Your task to perform on an android device: change text size in settings app Image 0: 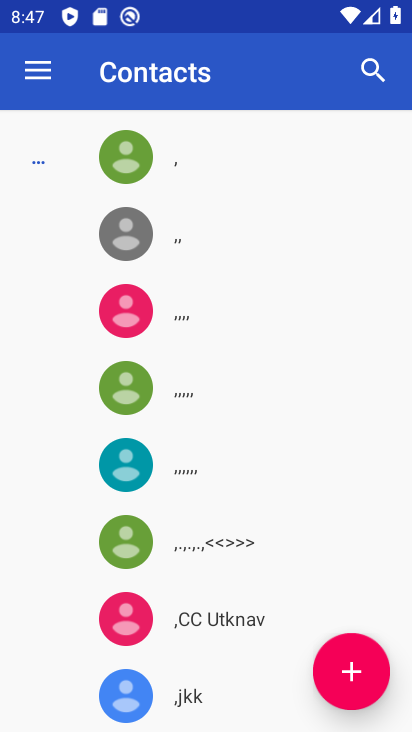
Step 0: press home button
Your task to perform on an android device: change text size in settings app Image 1: 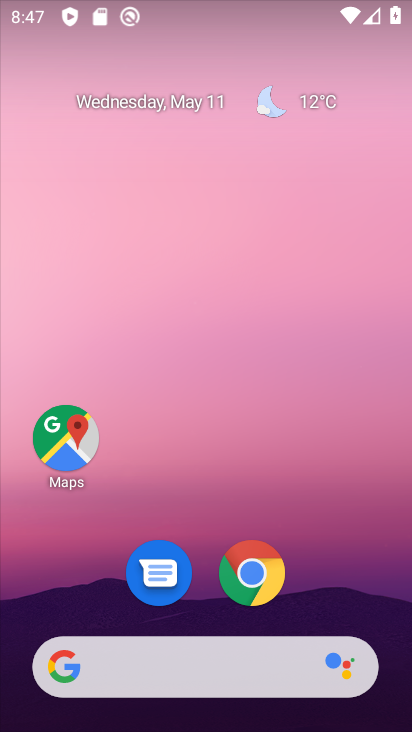
Step 1: drag from (279, 644) to (289, 21)
Your task to perform on an android device: change text size in settings app Image 2: 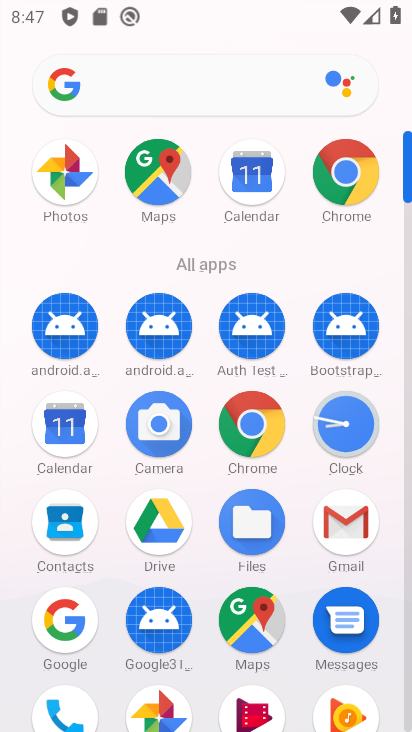
Step 2: drag from (298, 658) to (282, 223)
Your task to perform on an android device: change text size in settings app Image 3: 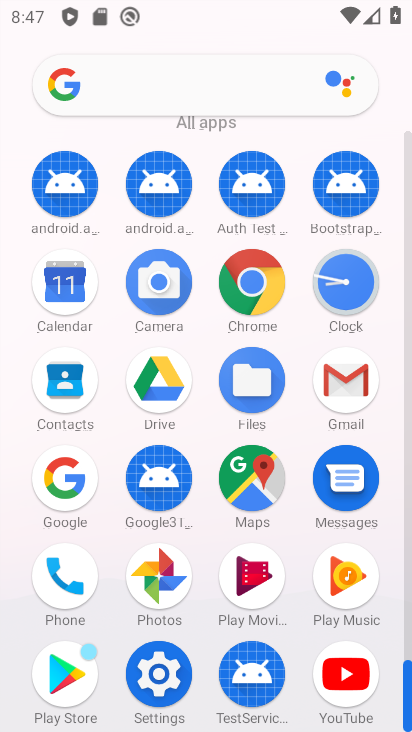
Step 3: click (168, 663)
Your task to perform on an android device: change text size in settings app Image 4: 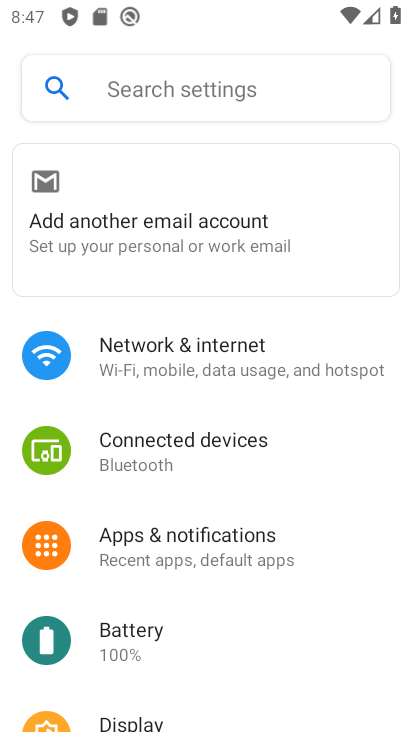
Step 4: drag from (287, 708) to (321, 169)
Your task to perform on an android device: change text size in settings app Image 5: 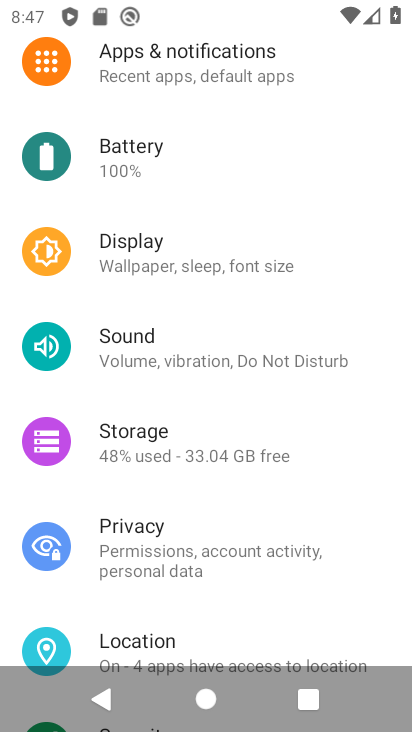
Step 5: drag from (295, 584) to (323, 1)
Your task to perform on an android device: change text size in settings app Image 6: 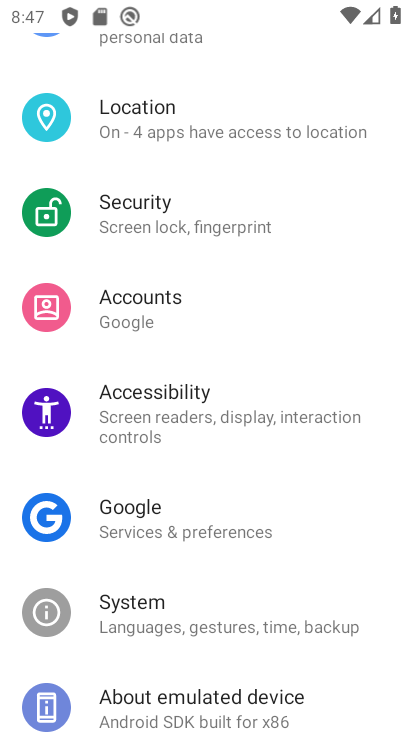
Step 6: drag from (197, 654) to (259, 288)
Your task to perform on an android device: change text size in settings app Image 7: 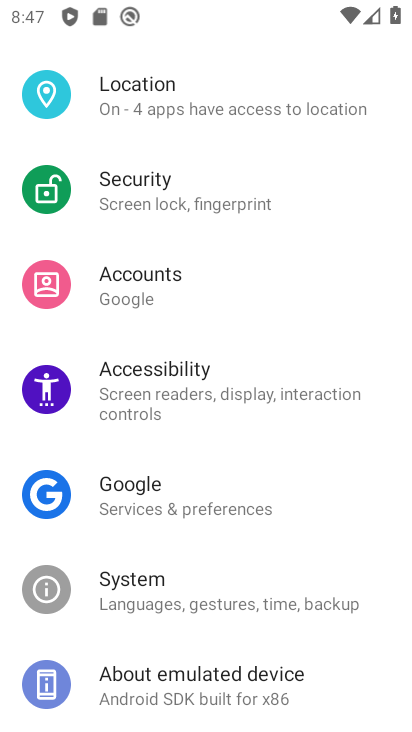
Step 7: click (215, 382)
Your task to perform on an android device: change text size in settings app Image 8: 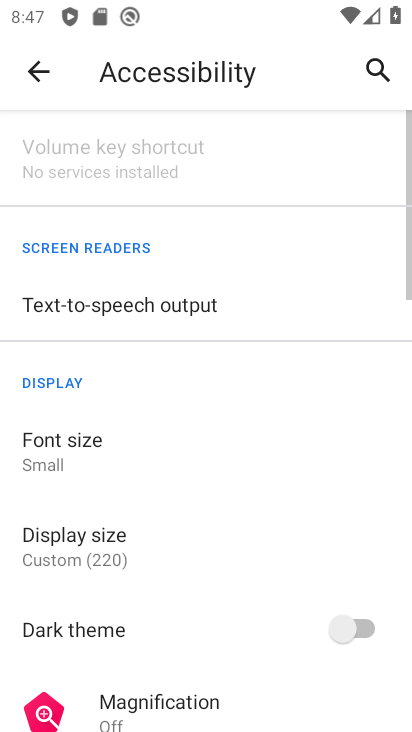
Step 8: click (79, 447)
Your task to perform on an android device: change text size in settings app Image 9: 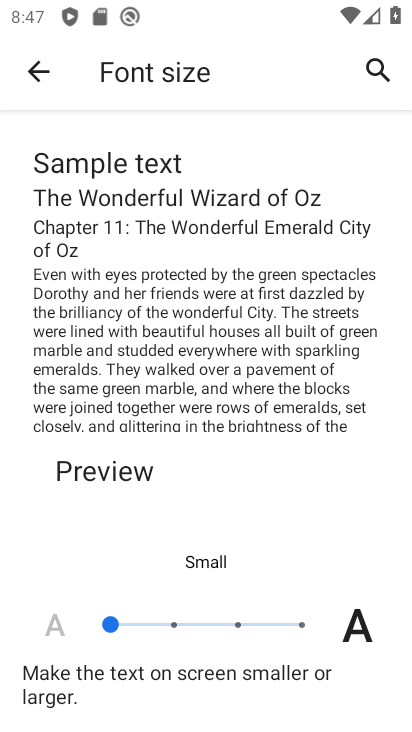
Step 9: click (172, 624)
Your task to perform on an android device: change text size in settings app Image 10: 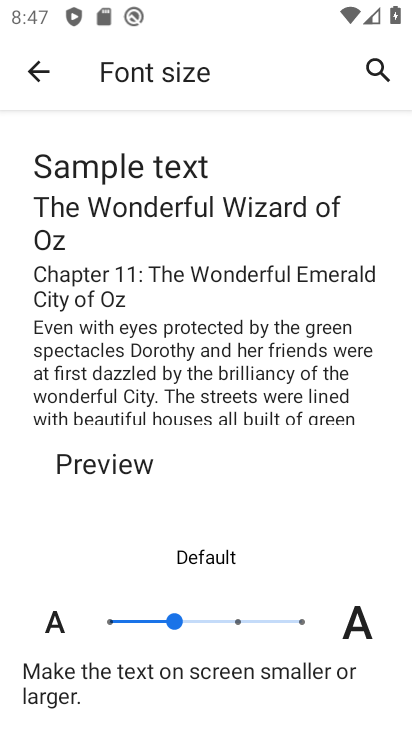
Step 10: task complete